Your task to perform on an android device: change notifications settings Image 0: 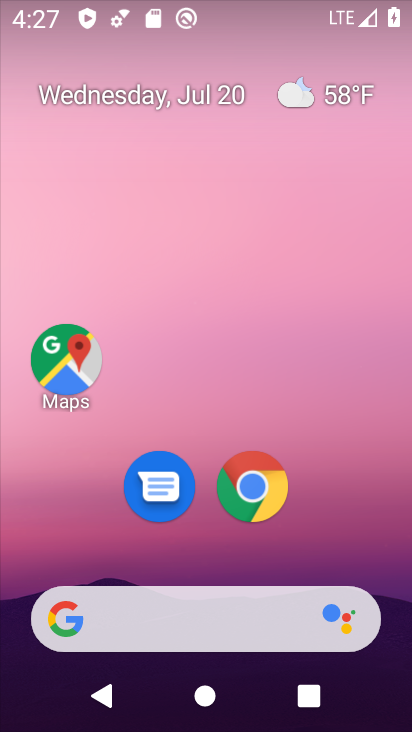
Step 0: drag from (120, 551) to (224, 27)
Your task to perform on an android device: change notifications settings Image 1: 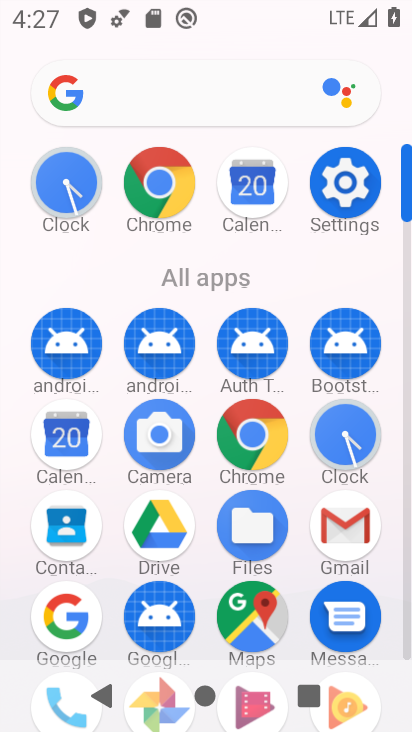
Step 1: click (347, 184)
Your task to perform on an android device: change notifications settings Image 2: 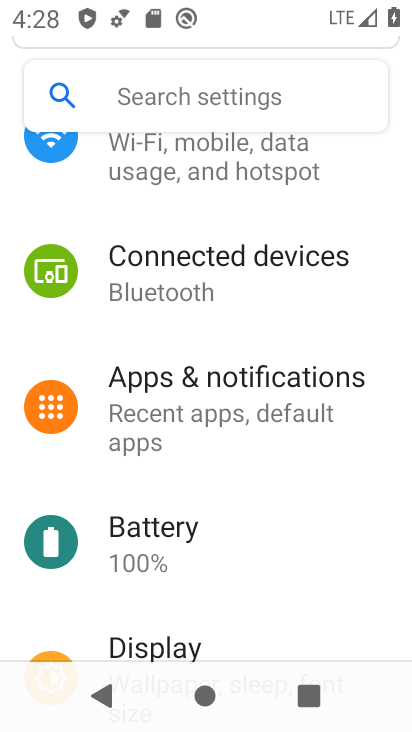
Step 2: click (213, 387)
Your task to perform on an android device: change notifications settings Image 3: 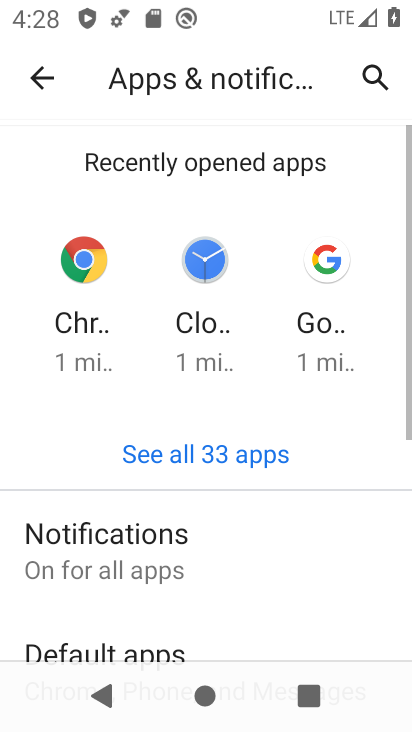
Step 3: click (167, 562)
Your task to perform on an android device: change notifications settings Image 4: 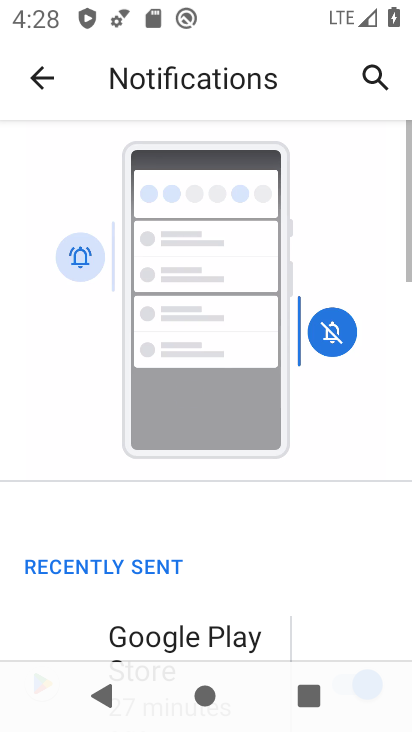
Step 4: drag from (224, 423) to (269, 8)
Your task to perform on an android device: change notifications settings Image 5: 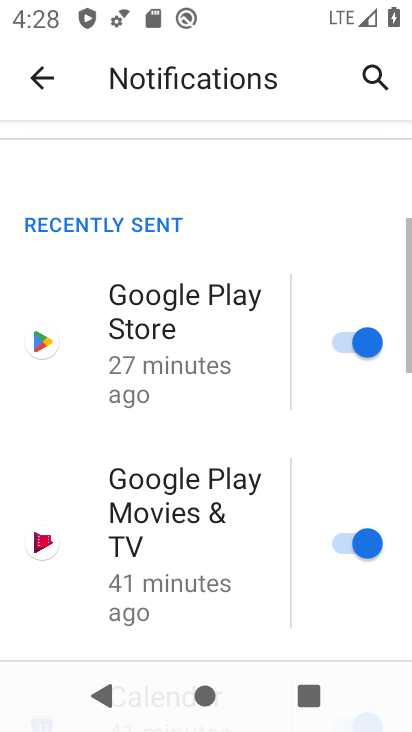
Step 5: drag from (181, 564) to (244, 28)
Your task to perform on an android device: change notifications settings Image 6: 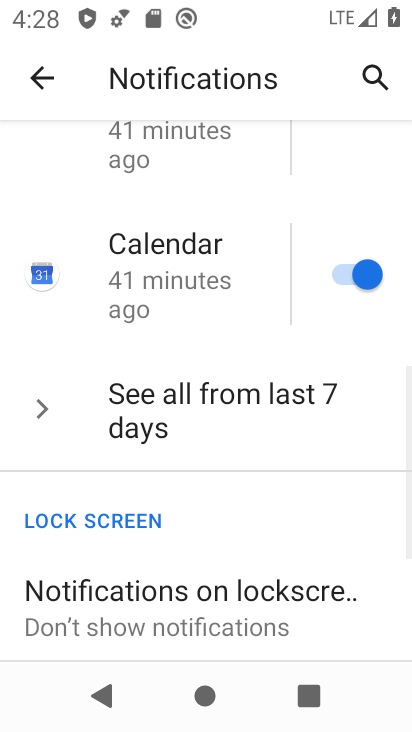
Step 6: drag from (257, 610) to (252, 0)
Your task to perform on an android device: change notifications settings Image 7: 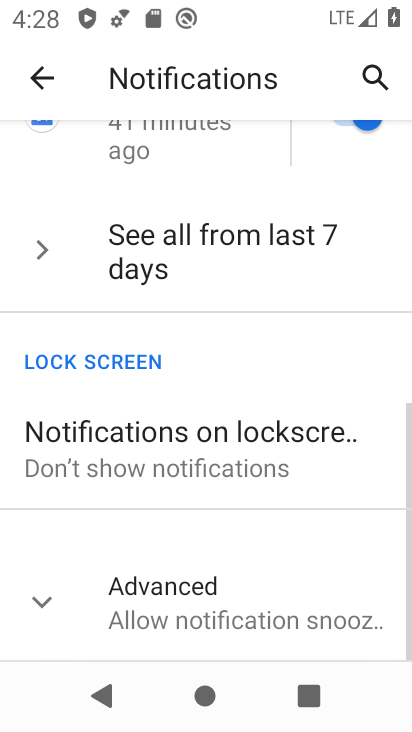
Step 7: click (234, 598)
Your task to perform on an android device: change notifications settings Image 8: 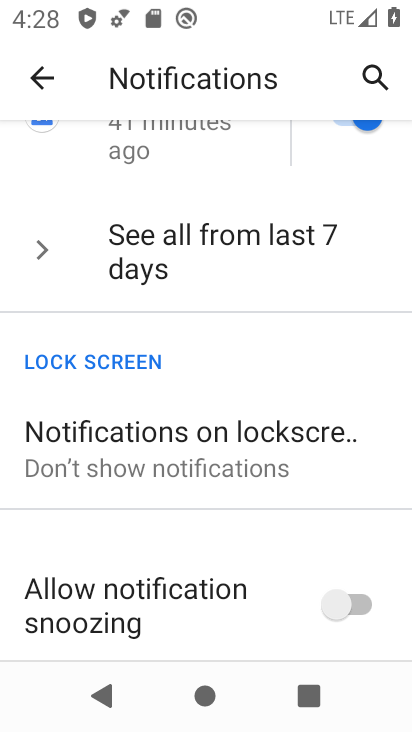
Step 8: click (322, 596)
Your task to perform on an android device: change notifications settings Image 9: 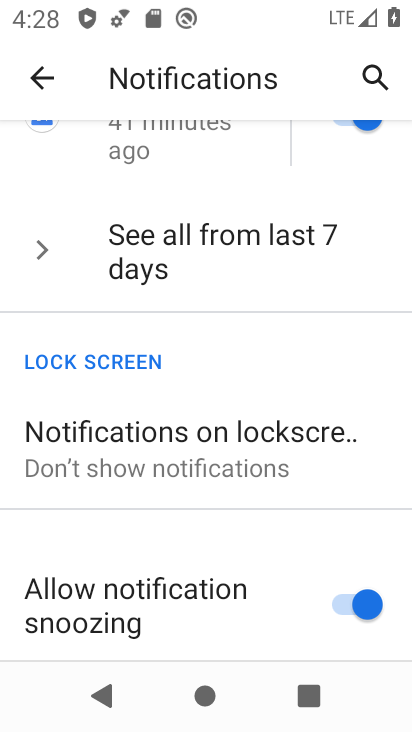
Step 9: task complete